Your task to perform on an android device: Show me popular games on the Play Store Image 0: 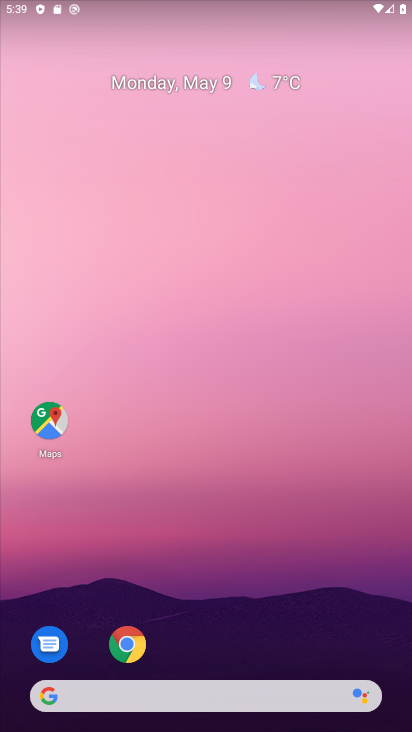
Step 0: drag from (236, 204) to (216, 57)
Your task to perform on an android device: Show me popular games on the Play Store Image 1: 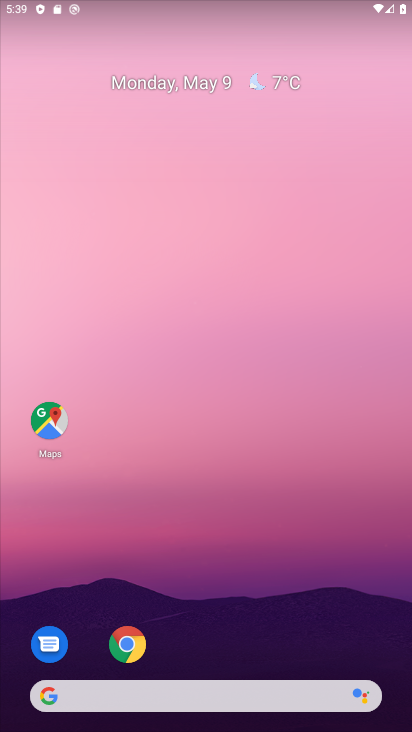
Step 1: drag from (215, 327) to (215, 56)
Your task to perform on an android device: Show me popular games on the Play Store Image 2: 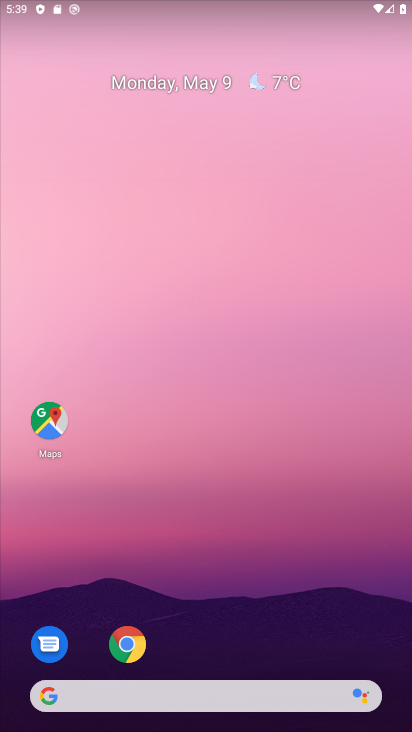
Step 2: drag from (259, 634) to (201, 30)
Your task to perform on an android device: Show me popular games on the Play Store Image 3: 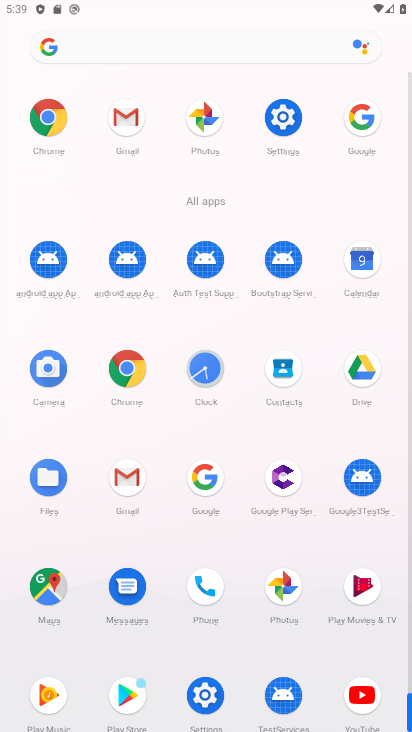
Step 3: click (128, 687)
Your task to perform on an android device: Show me popular games on the Play Store Image 4: 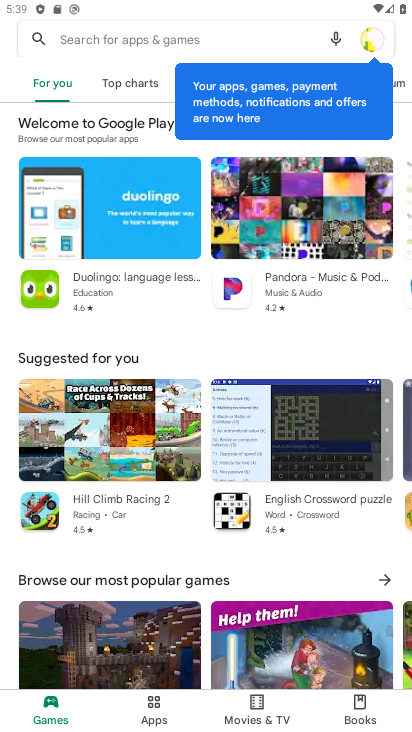
Step 4: click (208, 42)
Your task to perform on an android device: Show me popular games on the Play Store Image 5: 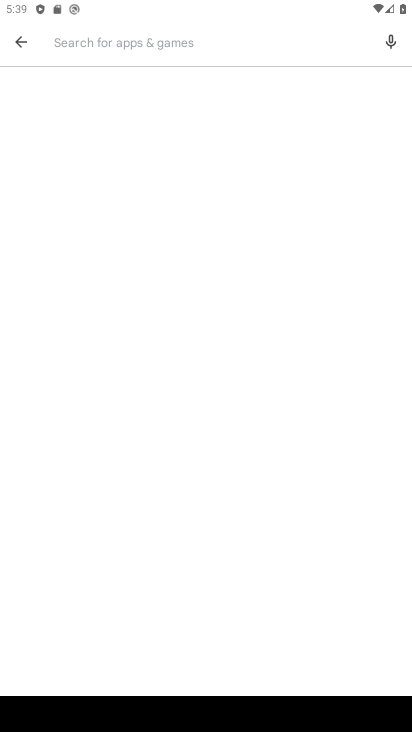
Step 5: type "popular games"
Your task to perform on an android device: Show me popular games on the Play Store Image 6: 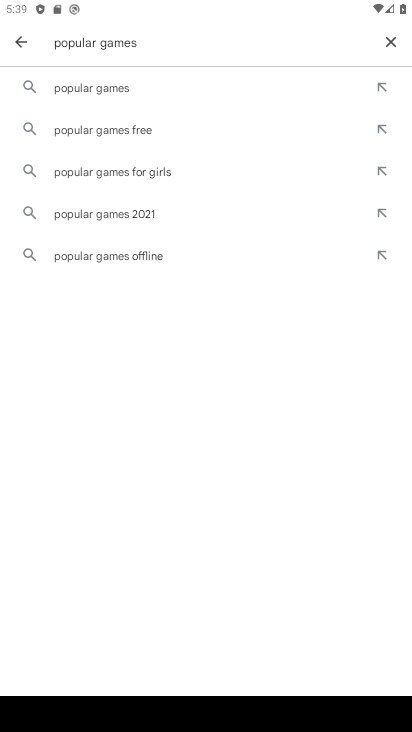
Step 6: click (192, 95)
Your task to perform on an android device: Show me popular games on the Play Store Image 7: 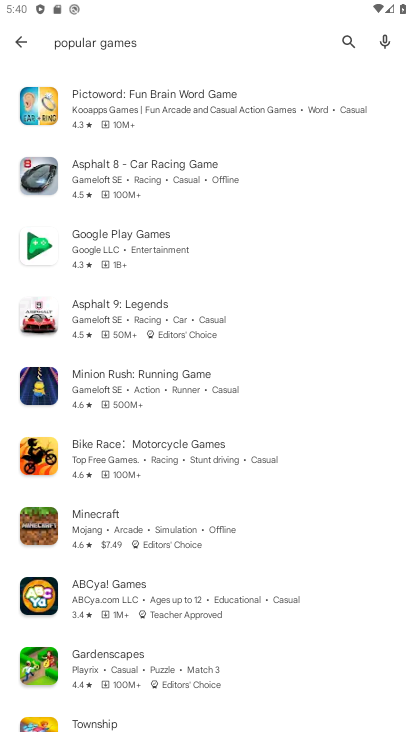
Step 7: task complete